Your task to perform on an android device: check android version Image 0: 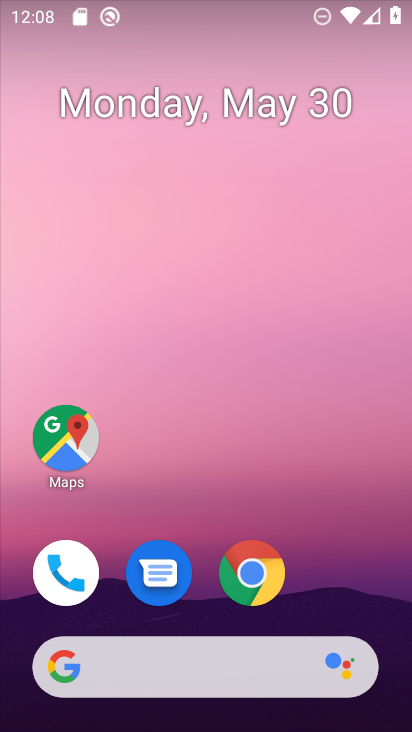
Step 0: press home button
Your task to perform on an android device: check android version Image 1: 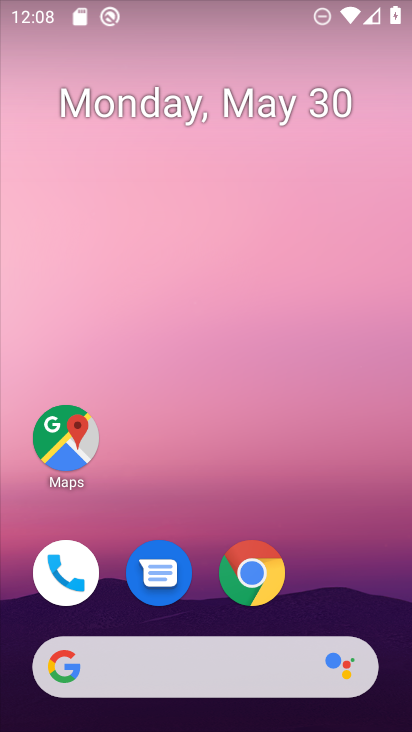
Step 1: drag from (337, 460) to (345, 168)
Your task to perform on an android device: check android version Image 2: 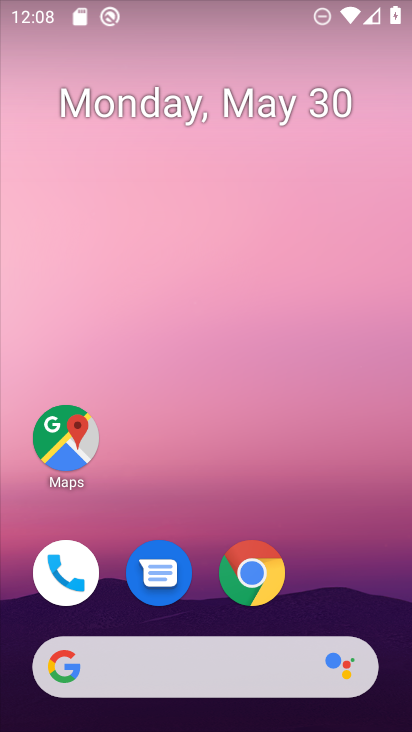
Step 2: drag from (334, 612) to (335, 217)
Your task to perform on an android device: check android version Image 3: 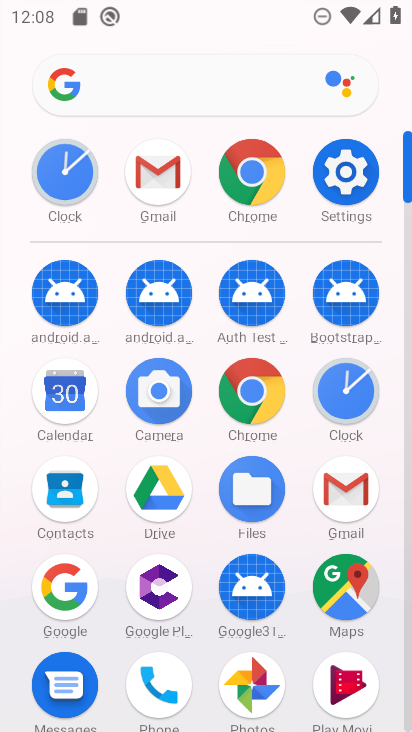
Step 3: click (350, 174)
Your task to perform on an android device: check android version Image 4: 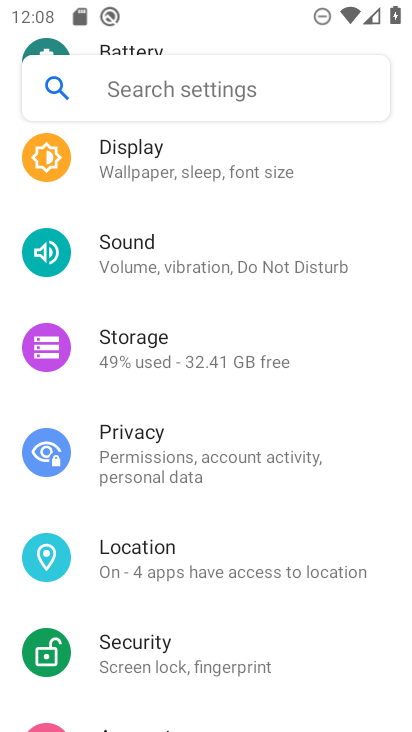
Step 4: drag from (324, 706) to (281, 204)
Your task to perform on an android device: check android version Image 5: 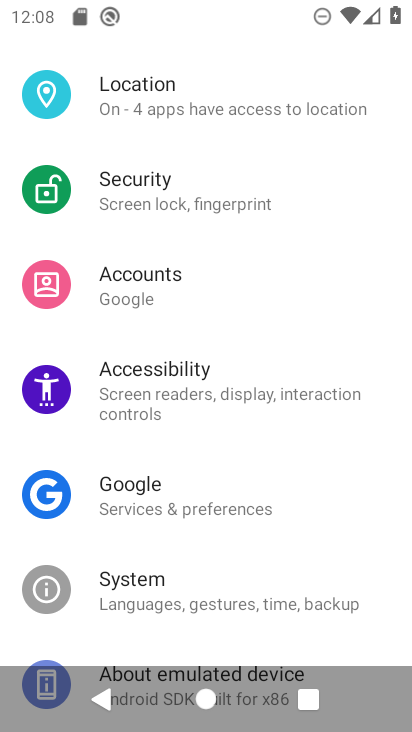
Step 5: drag from (263, 637) to (295, 129)
Your task to perform on an android device: check android version Image 6: 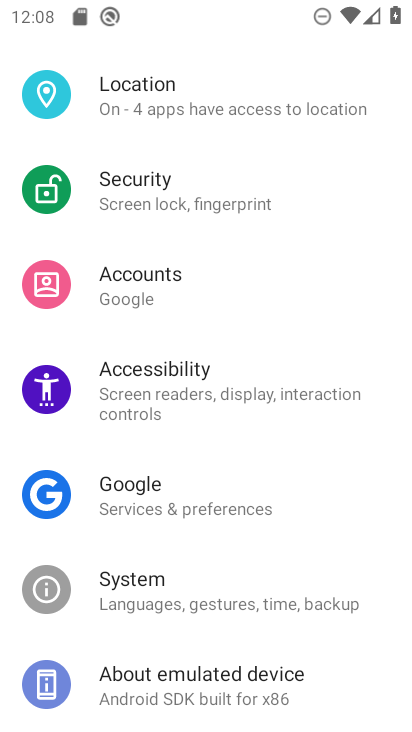
Step 6: click (166, 688)
Your task to perform on an android device: check android version Image 7: 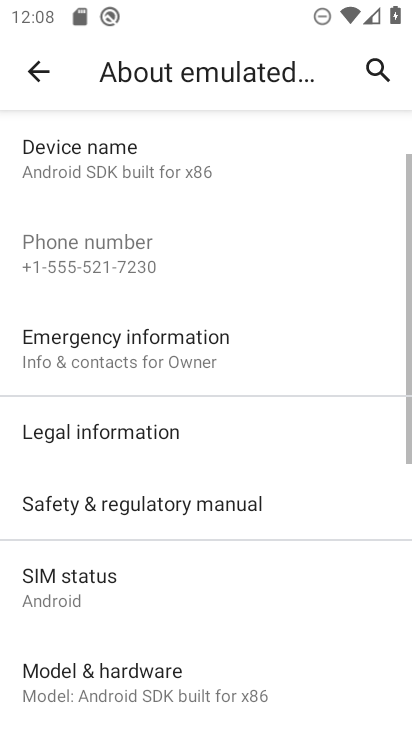
Step 7: task complete